Your task to perform on an android device: find photos in the google photos app Image 0: 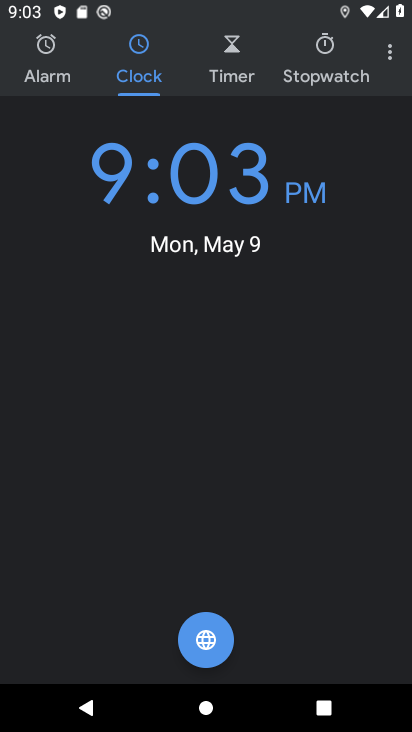
Step 0: press home button
Your task to perform on an android device: find photos in the google photos app Image 1: 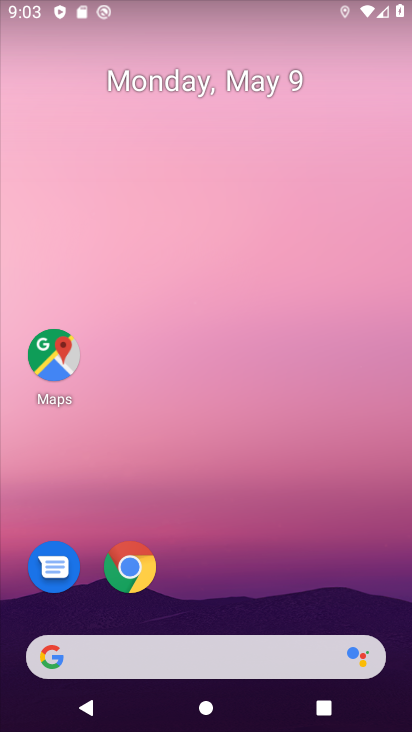
Step 1: drag from (227, 629) to (179, 227)
Your task to perform on an android device: find photos in the google photos app Image 2: 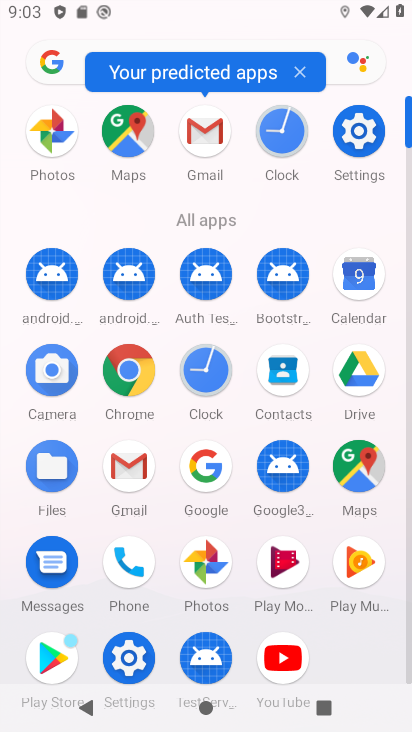
Step 2: click (202, 573)
Your task to perform on an android device: find photos in the google photos app Image 3: 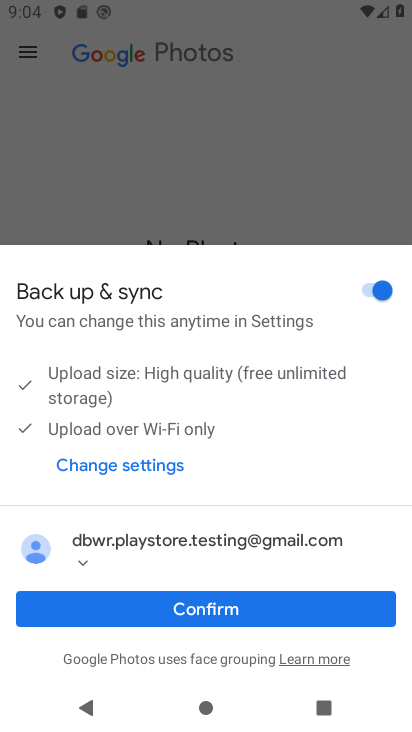
Step 3: click (205, 609)
Your task to perform on an android device: find photos in the google photos app Image 4: 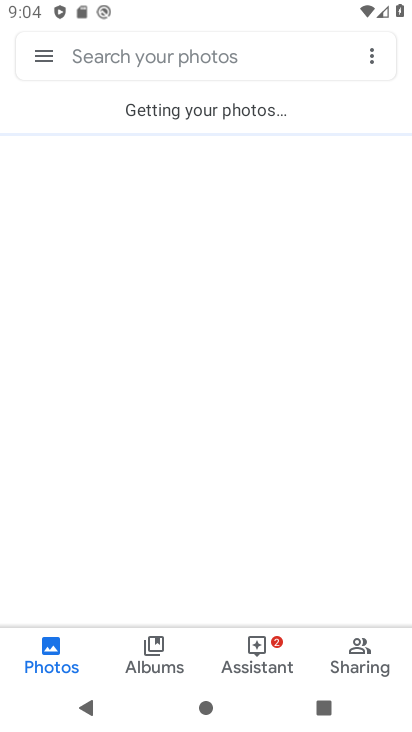
Step 4: task complete